Your task to perform on an android device: move a message to another label in the gmail app Image 0: 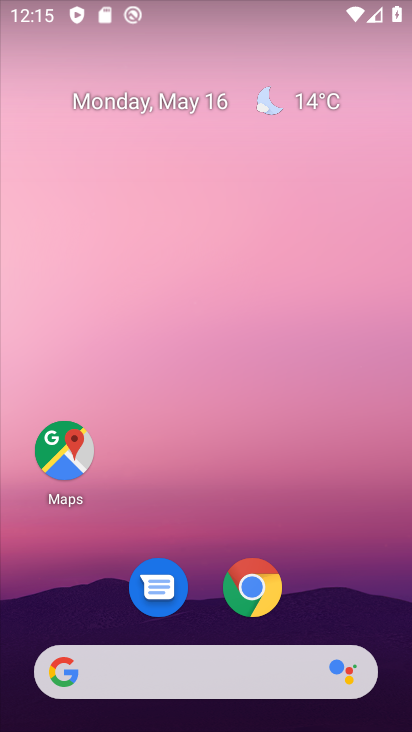
Step 0: drag from (218, 707) to (218, 117)
Your task to perform on an android device: move a message to another label in the gmail app Image 1: 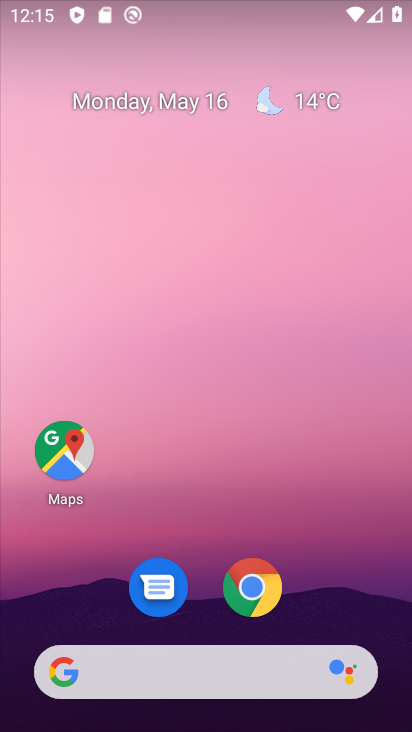
Step 1: drag from (240, 729) to (242, 160)
Your task to perform on an android device: move a message to another label in the gmail app Image 2: 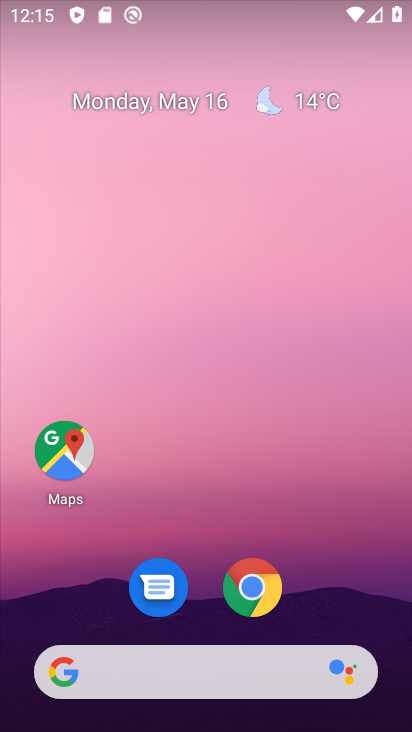
Step 2: drag from (236, 664) to (247, 34)
Your task to perform on an android device: move a message to another label in the gmail app Image 3: 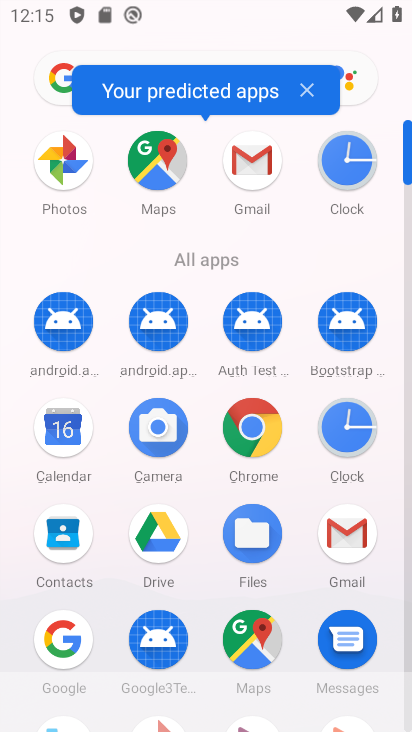
Step 3: click (345, 534)
Your task to perform on an android device: move a message to another label in the gmail app Image 4: 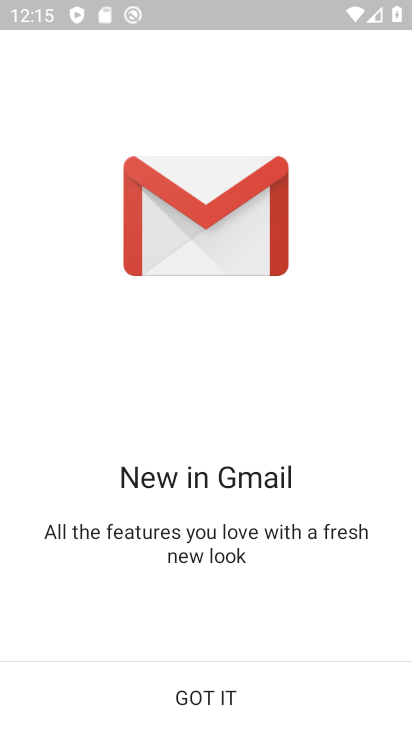
Step 4: click (203, 691)
Your task to perform on an android device: move a message to another label in the gmail app Image 5: 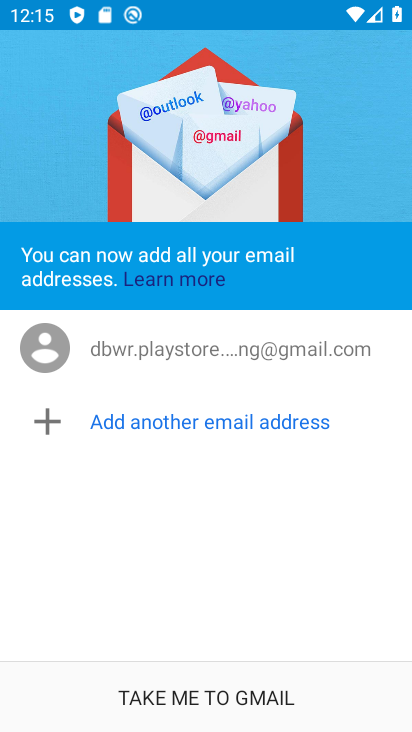
Step 5: click (202, 692)
Your task to perform on an android device: move a message to another label in the gmail app Image 6: 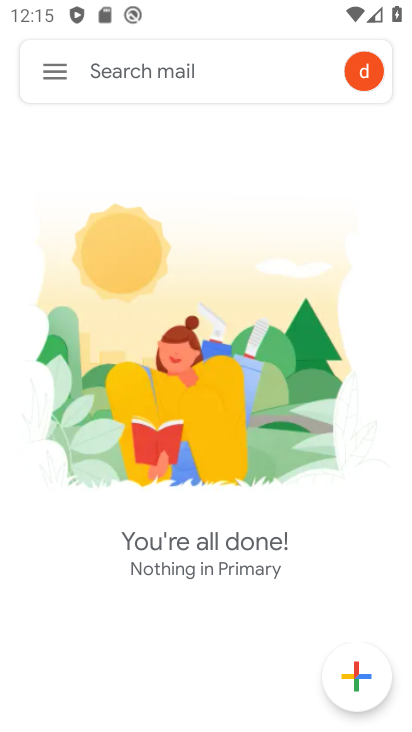
Step 6: task complete